Your task to perform on an android device: Open Google Chrome Image 0: 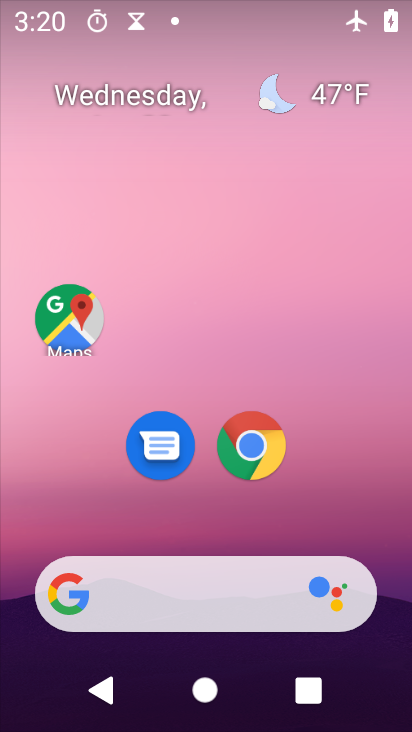
Step 0: click (252, 451)
Your task to perform on an android device: Open Google Chrome Image 1: 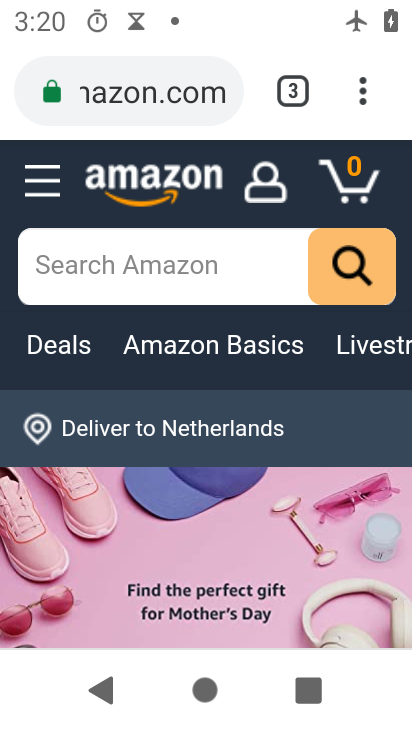
Step 1: task complete